Your task to perform on an android device: Go to calendar. Show me events next week Image 0: 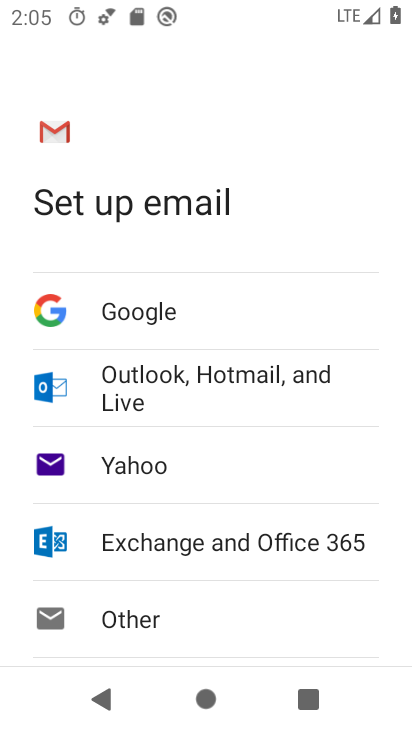
Step 0: press home button
Your task to perform on an android device: Go to calendar. Show me events next week Image 1: 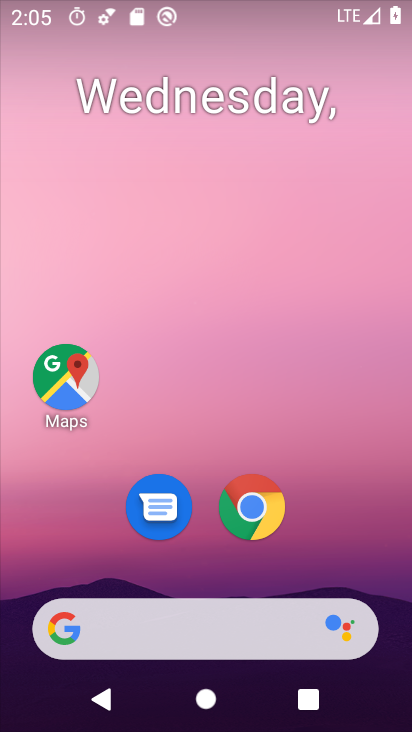
Step 1: drag from (316, 565) to (379, 0)
Your task to perform on an android device: Go to calendar. Show me events next week Image 2: 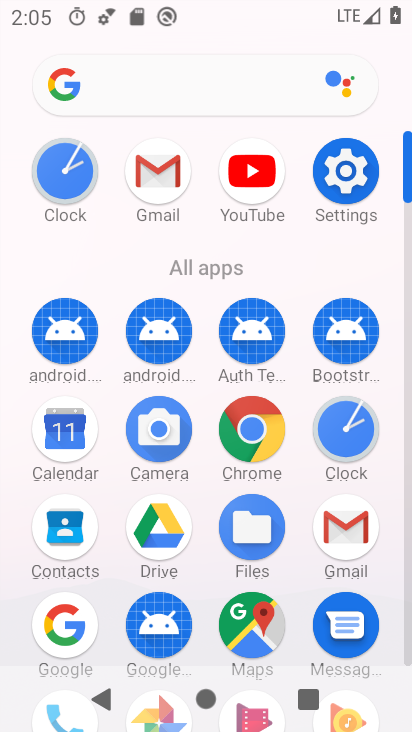
Step 2: click (72, 431)
Your task to perform on an android device: Go to calendar. Show me events next week Image 3: 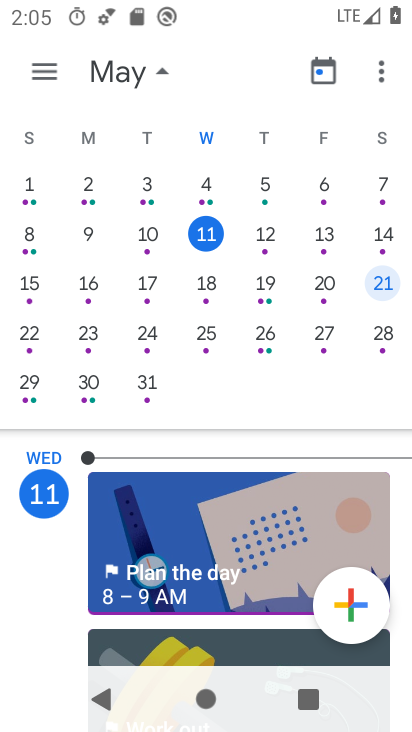
Step 3: click (38, 297)
Your task to perform on an android device: Go to calendar. Show me events next week Image 4: 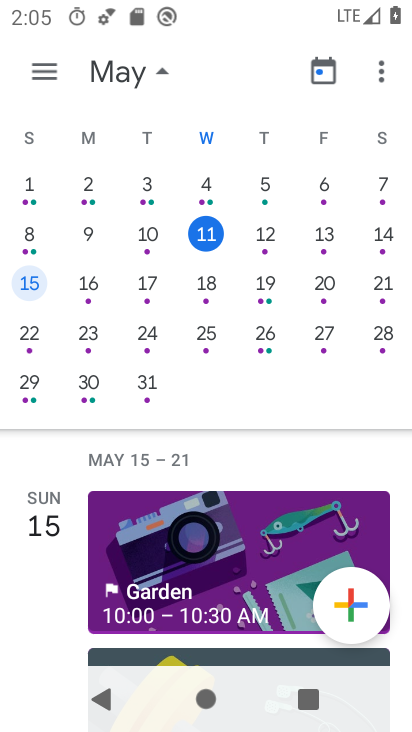
Step 4: click (92, 297)
Your task to perform on an android device: Go to calendar. Show me events next week Image 5: 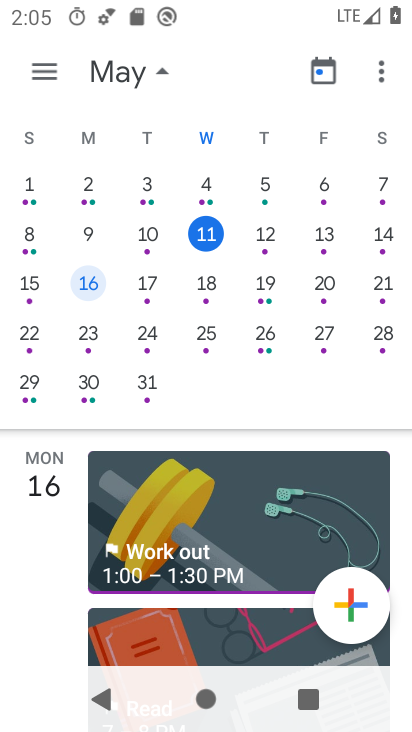
Step 5: click (156, 288)
Your task to perform on an android device: Go to calendar. Show me events next week Image 6: 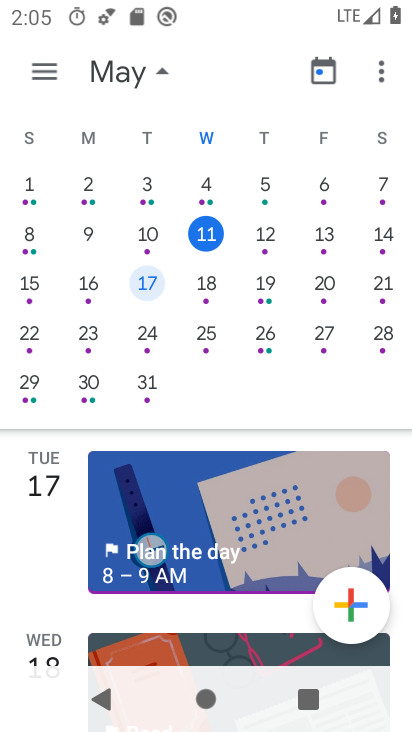
Step 6: click (203, 294)
Your task to perform on an android device: Go to calendar. Show me events next week Image 7: 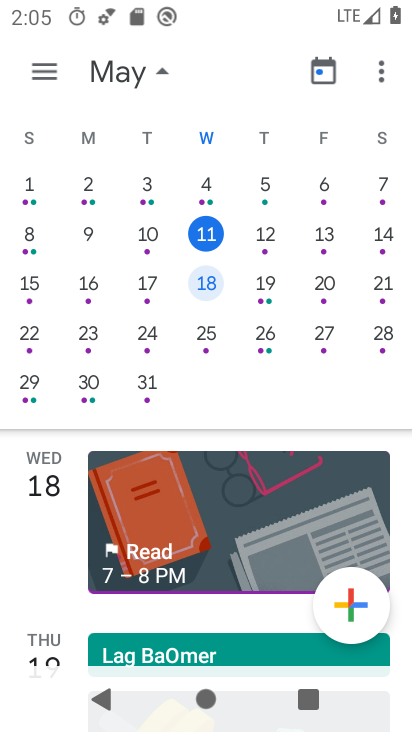
Step 7: click (276, 295)
Your task to perform on an android device: Go to calendar. Show me events next week Image 8: 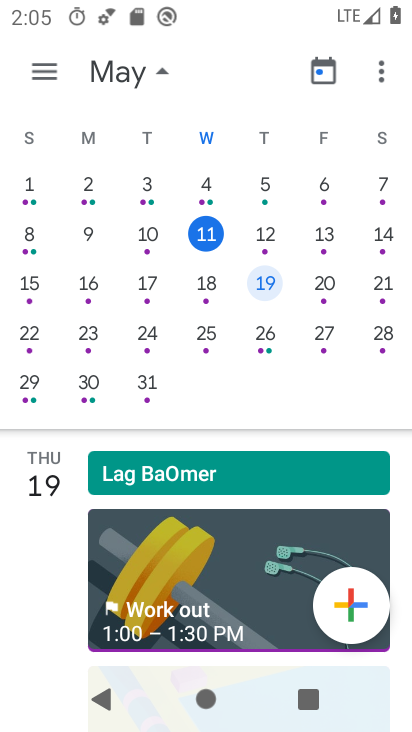
Step 8: click (330, 304)
Your task to perform on an android device: Go to calendar. Show me events next week Image 9: 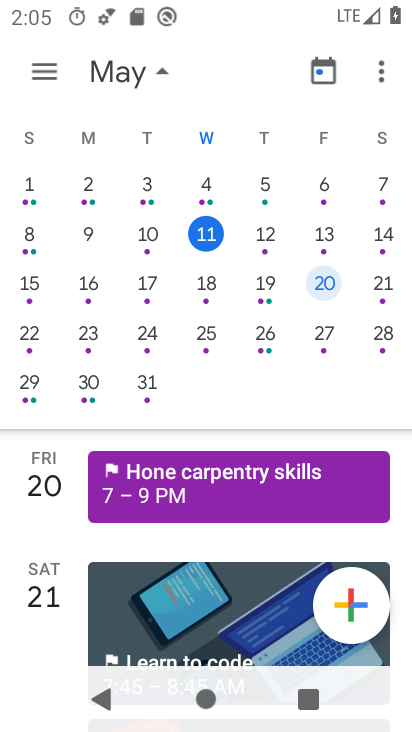
Step 9: click (381, 295)
Your task to perform on an android device: Go to calendar. Show me events next week Image 10: 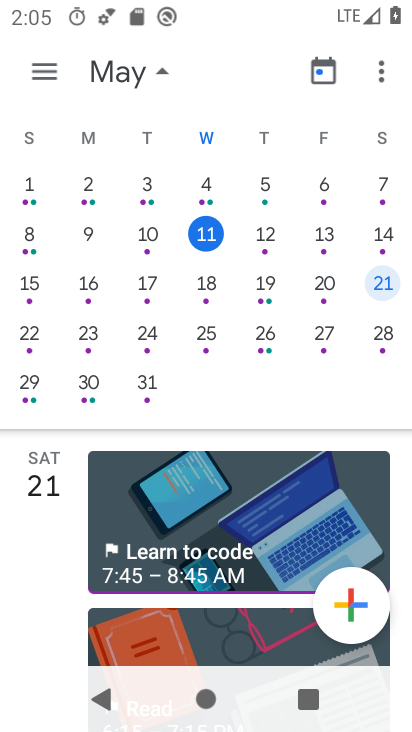
Step 10: task complete